Your task to perform on an android device: Open the stopwatch Image 0: 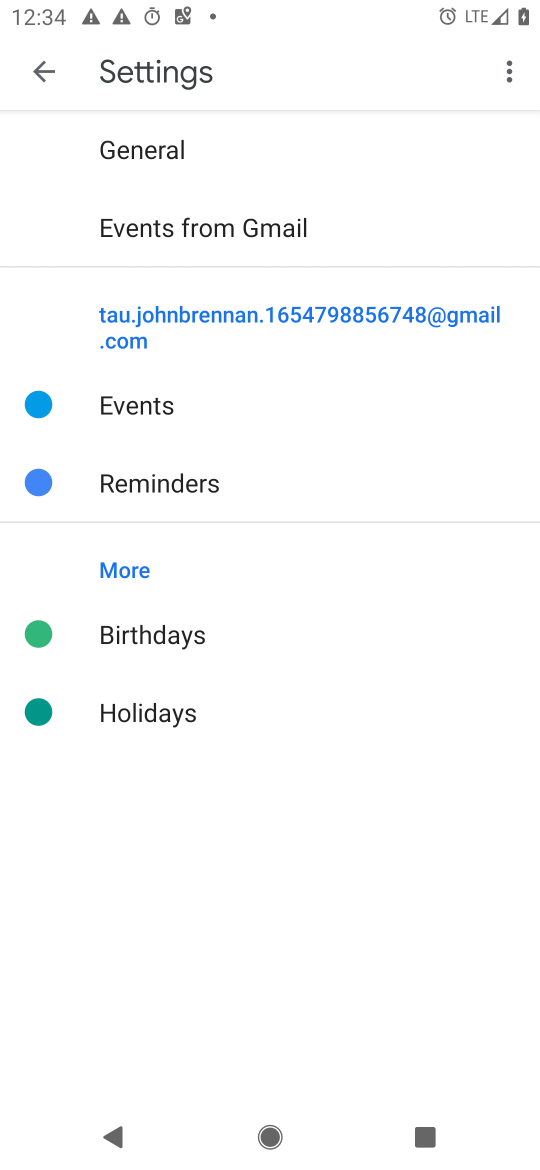
Step 0: click (338, 551)
Your task to perform on an android device: Open the stopwatch Image 1: 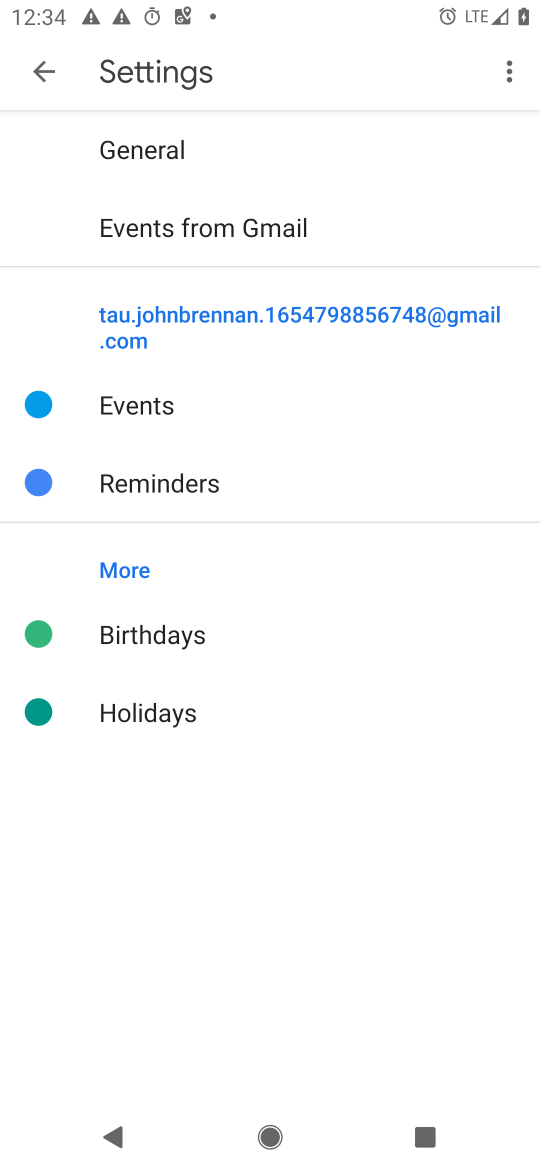
Step 1: press home button
Your task to perform on an android device: Open the stopwatch Image 2: 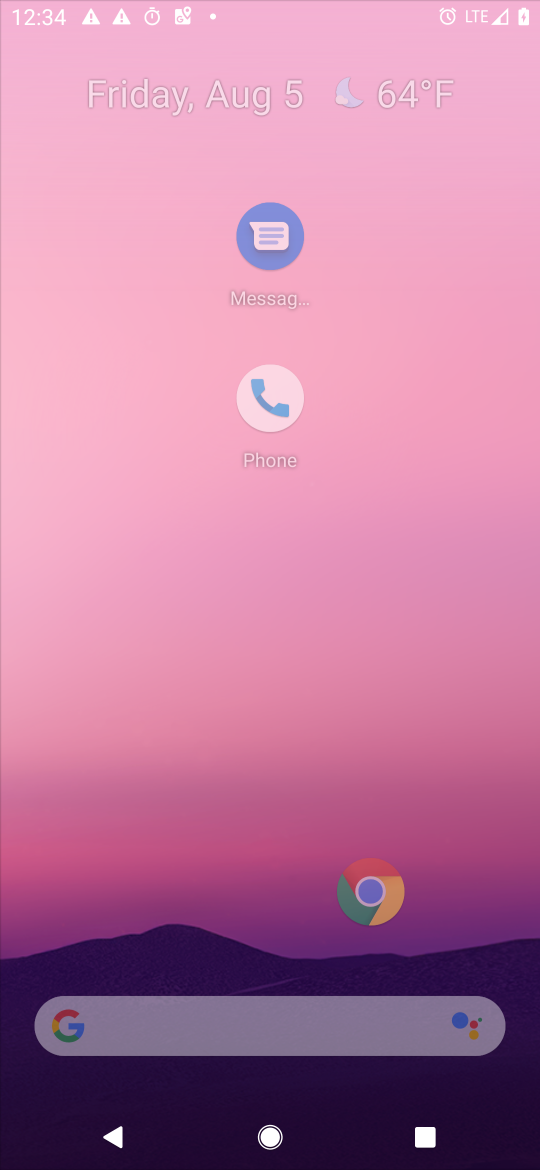
Step 2: drag from (320, 610) to (370, 183)
Your task to perform on an android device: Open the stopwatch Image 3: 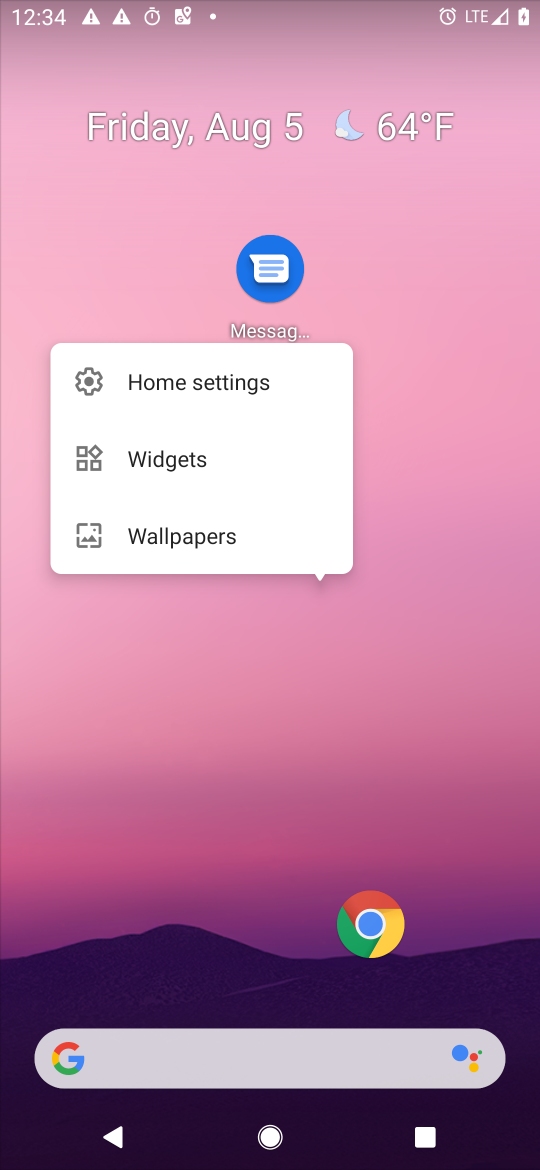
Step 3: drag from (269, 883) to (343, 223)
Your task to perform on an android device: Open the stopwatch Image 4: 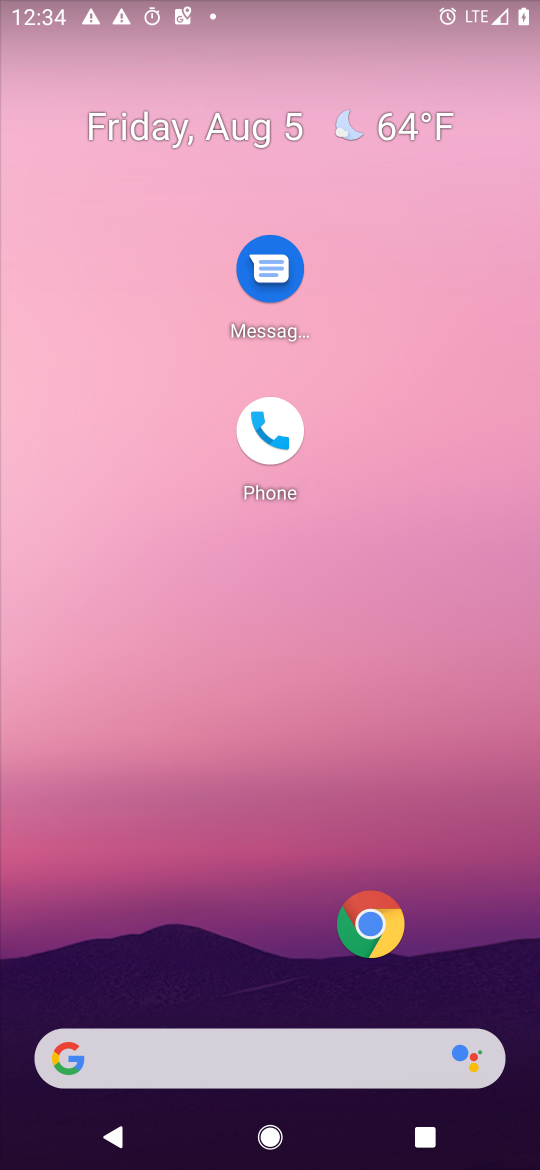
Step 4: drag from (215, 969) to (307, 264)
Your task to perform on an android device: Open the stopwatch Image 5: 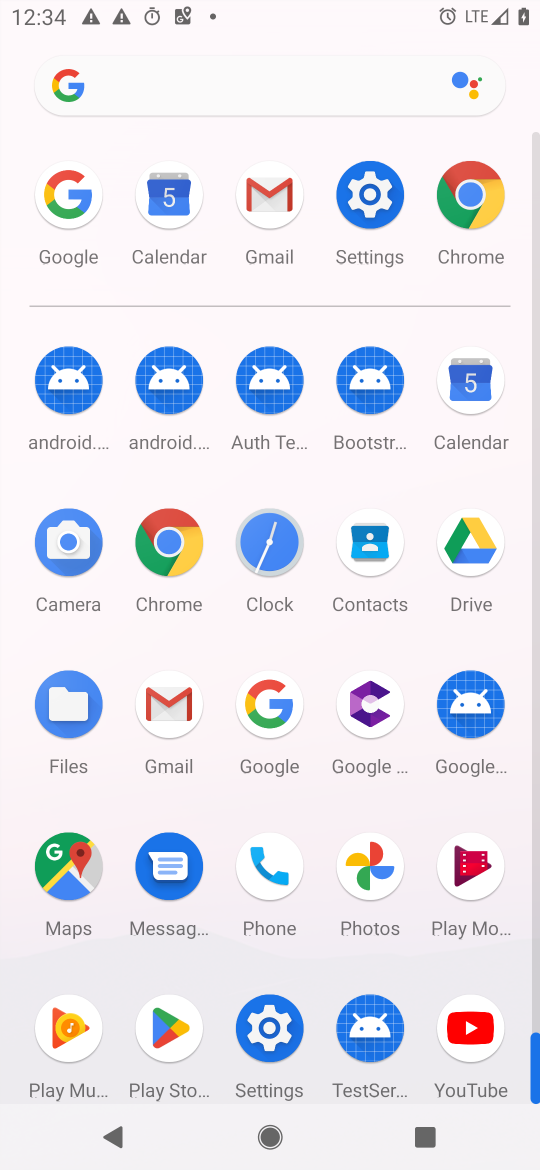
Step 5: click (275, 530)
Your task to perform on an android device: Open the stopwatch Image 6: 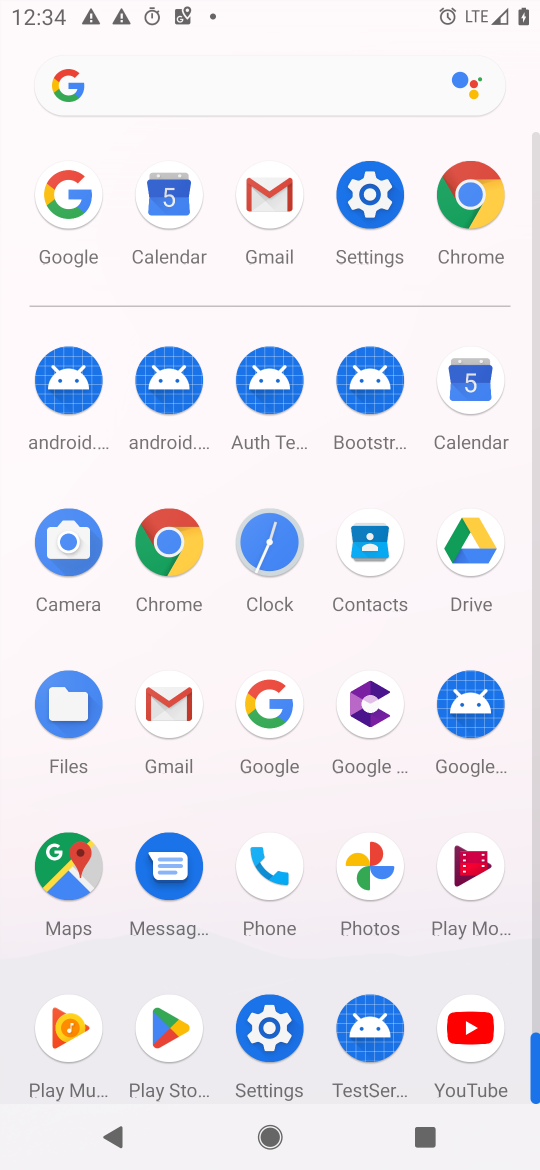
Step 6: click (275, 530)
Your task to perform on an android device: Open the stopwatch Image 7: 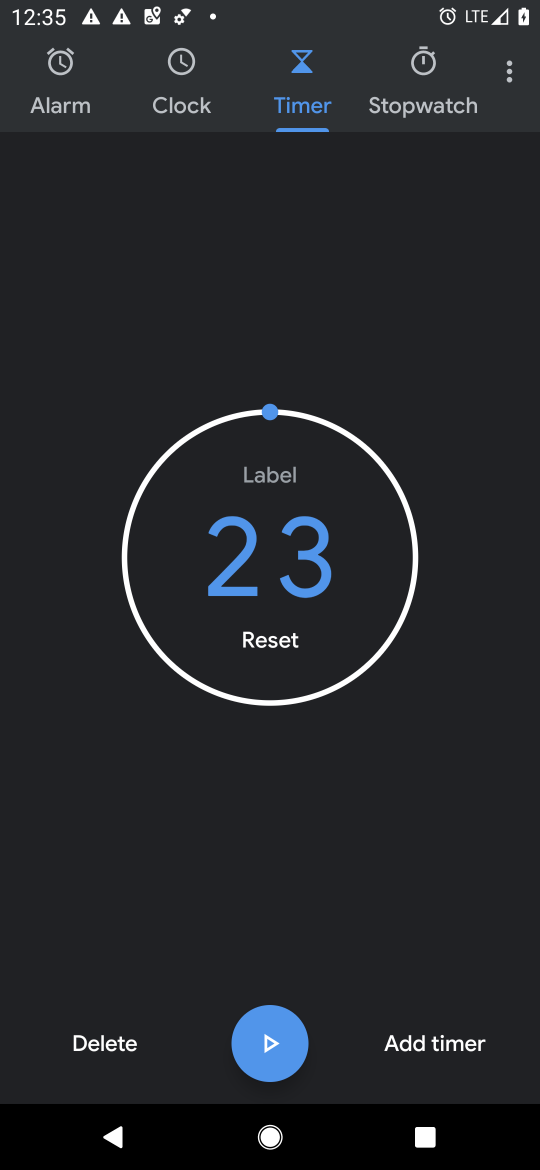
Step 7: click (314, 618)
Your task to perform on an android device: Open the stopwatch Image 8: 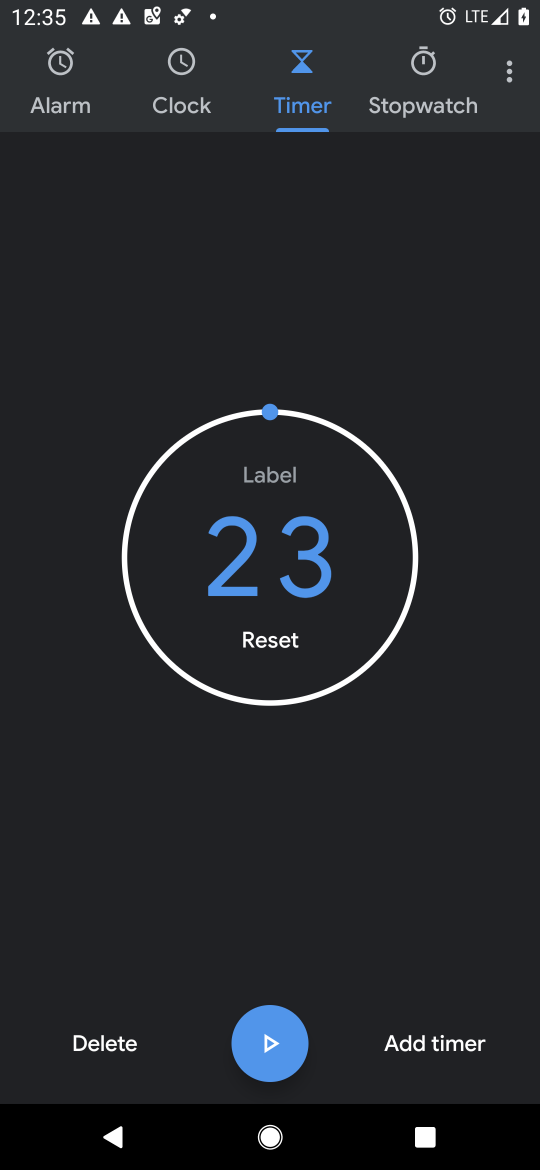
Step 8: click (258, 1049)
Your task to perform on an android device: Open the stopwatch Image 9: 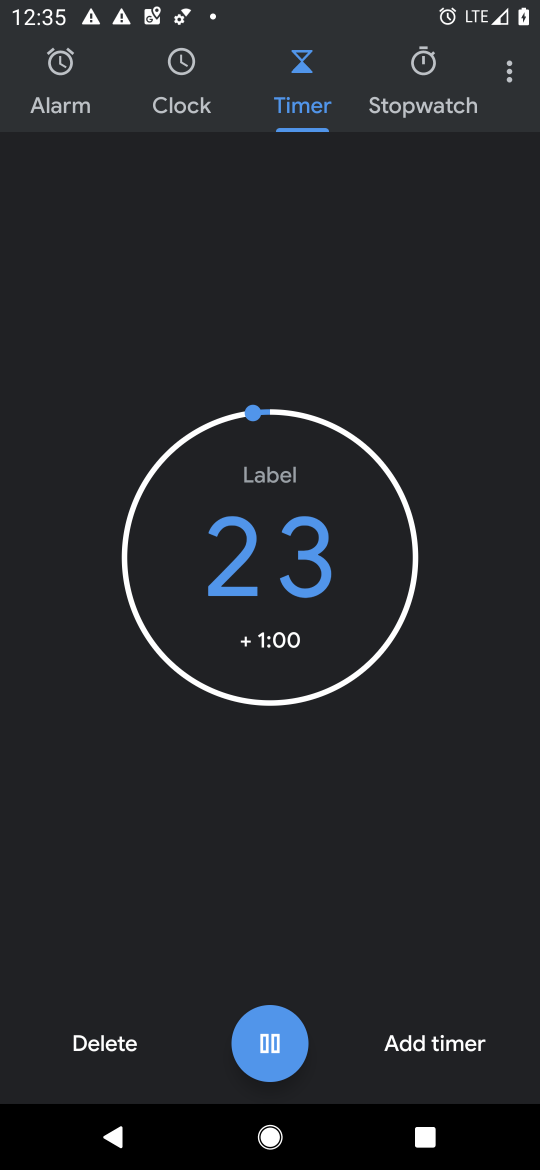
Step 9: task complete